Your task to perform on an android device: Open wifi settings Image 0: 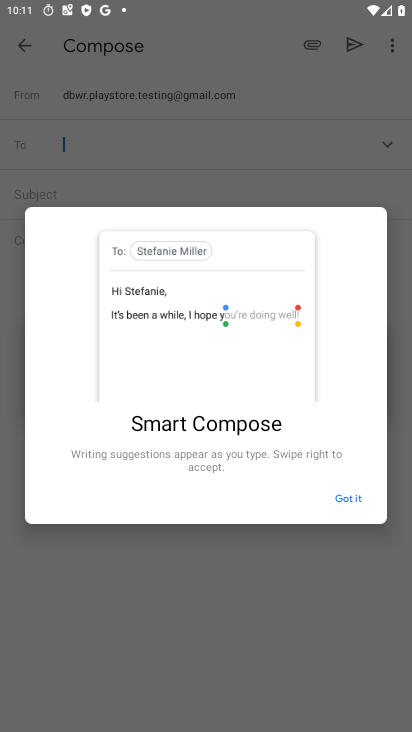
Step 0: press home button
Your task to perform on an android device: Open wifi settings Image 1: 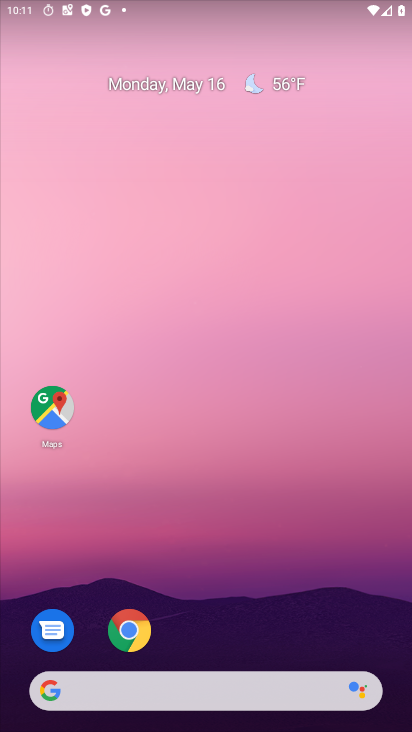
Step 1: drag from (191, 618) to (396, 82)
Your task to perform on an android device: Open wifi settings Image 2: 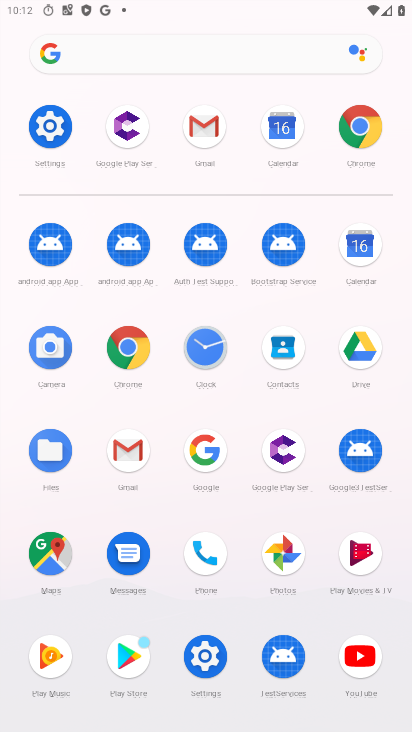
Step 2: click (206, 665)
Your task to perform on an android device: Open wifi settings Image 3: 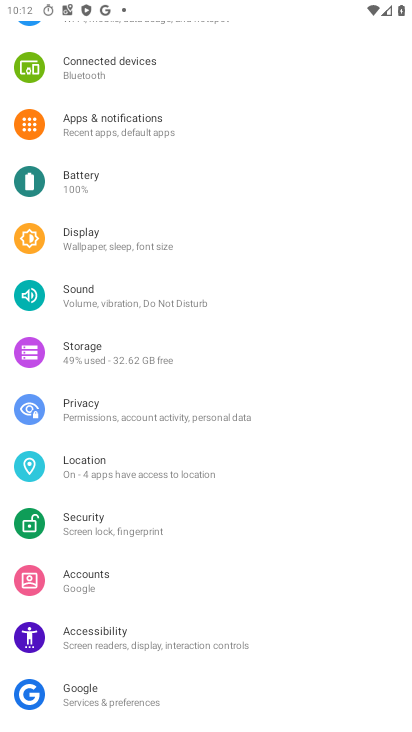
Step 3: drag from (154, 151) to (135, 600)
Your task to perform on an android device: Open wifi settings Image 4: 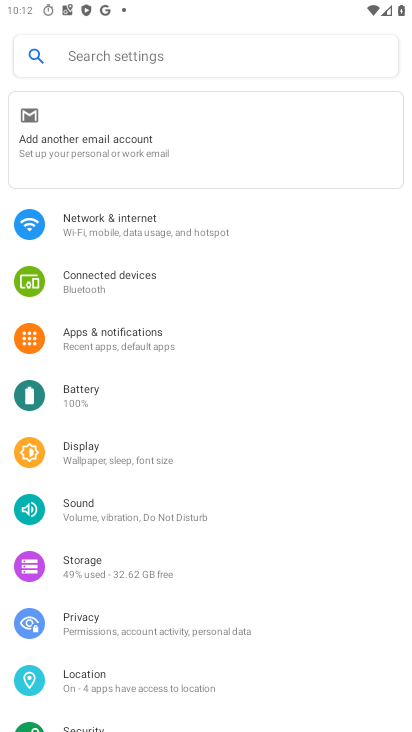
Step 4: click (132, 228)
Your task to perform on an android device: Open wifi settings Image 5: 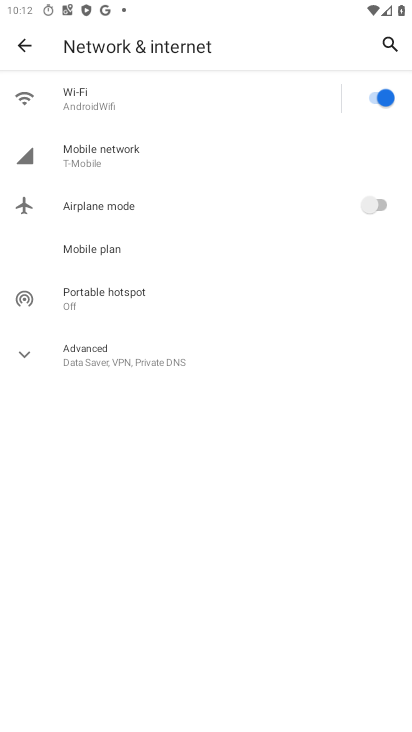
Step 5: click (205, 102)
Your task to perform on an android device: Open wifi settings Image 6: 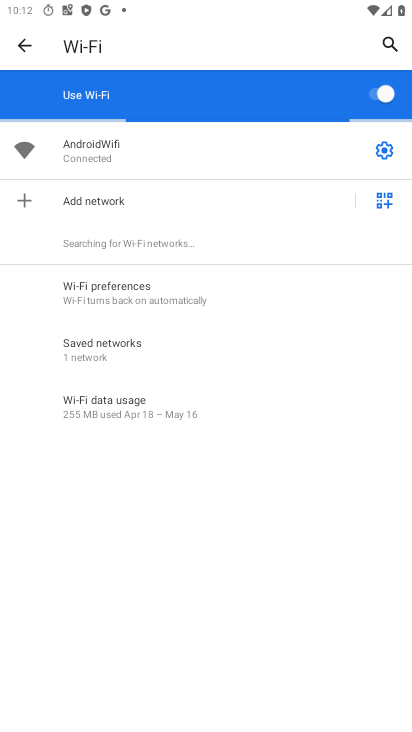
Step 6: task complete